Your task to perform on an android device: visit the assistant section in the google photos Image 0: 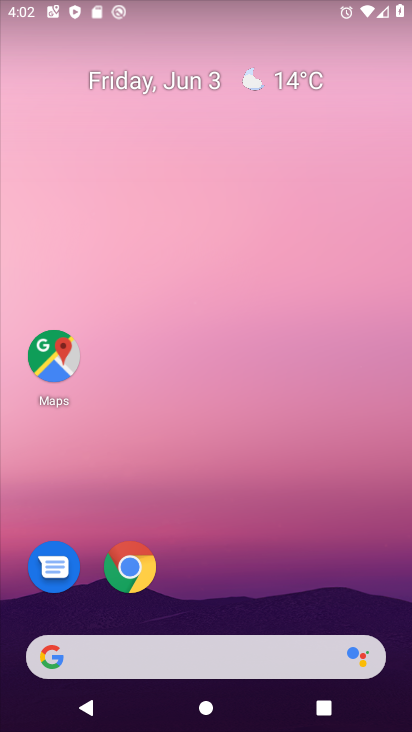
Step 0: drag from (197, 622) to (212, 197)
Your task to perform on an android device: visit the assistant section in the google photos Image 1: 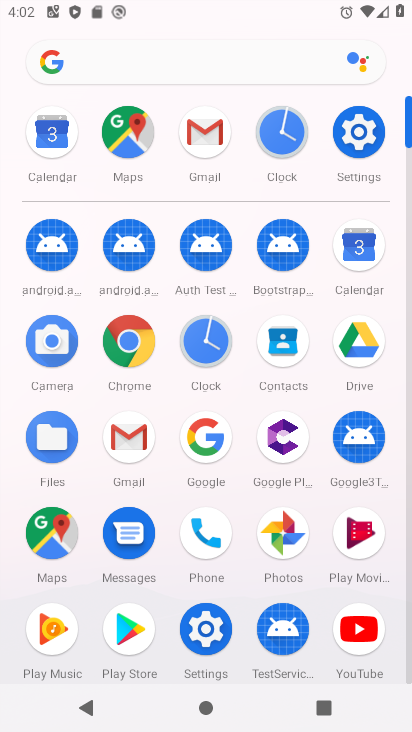
Step 1: click (283, 544)
Your task to perform on an android device: visit the assistant section in the google photos Image 2: 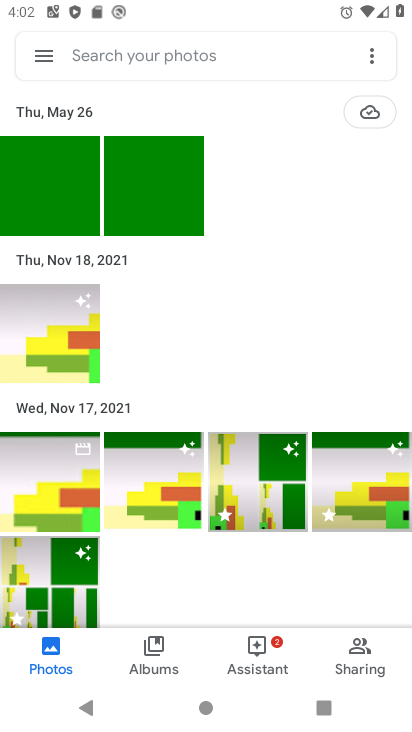
Step 2: click (266, 669)
Your task to perform on an android device: visit the assistant section in the google photos Image 3: 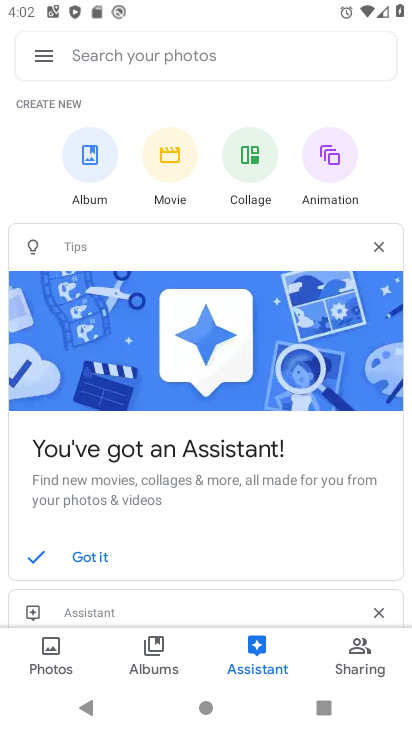
Step 3: task complete